Your task to perform on an android device: Search for custom made wallets on etsy.com Image 0: 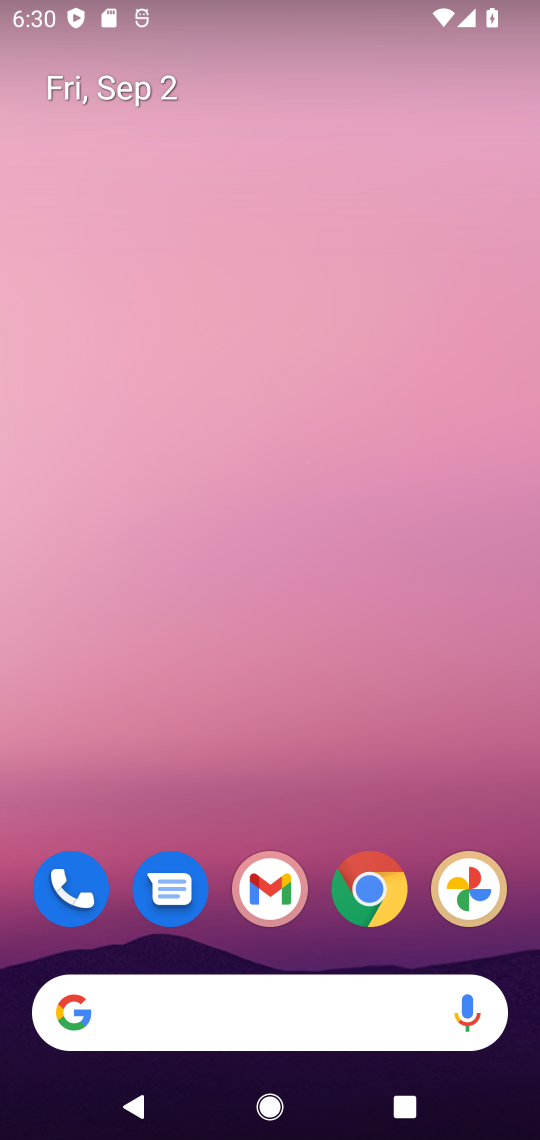
Step 0: click (357, 1032)
Your task to perform on an android device: Search for custom made wallets on etsy.com Image 1: 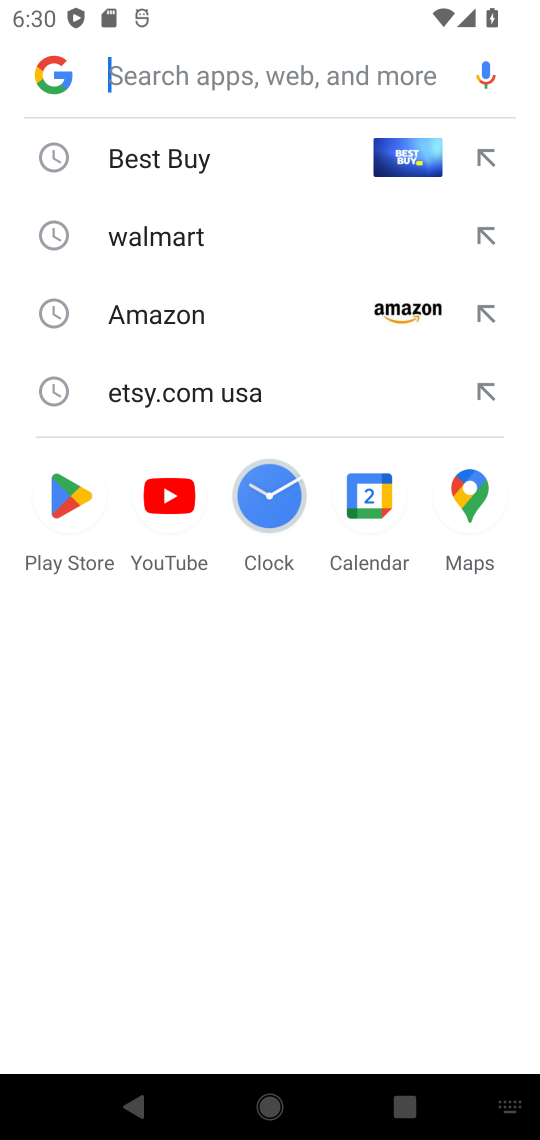
Step 1: type "etsy.com"
Your task to perform on an android device: Search for custom made wallets on etsy.com Image 2: 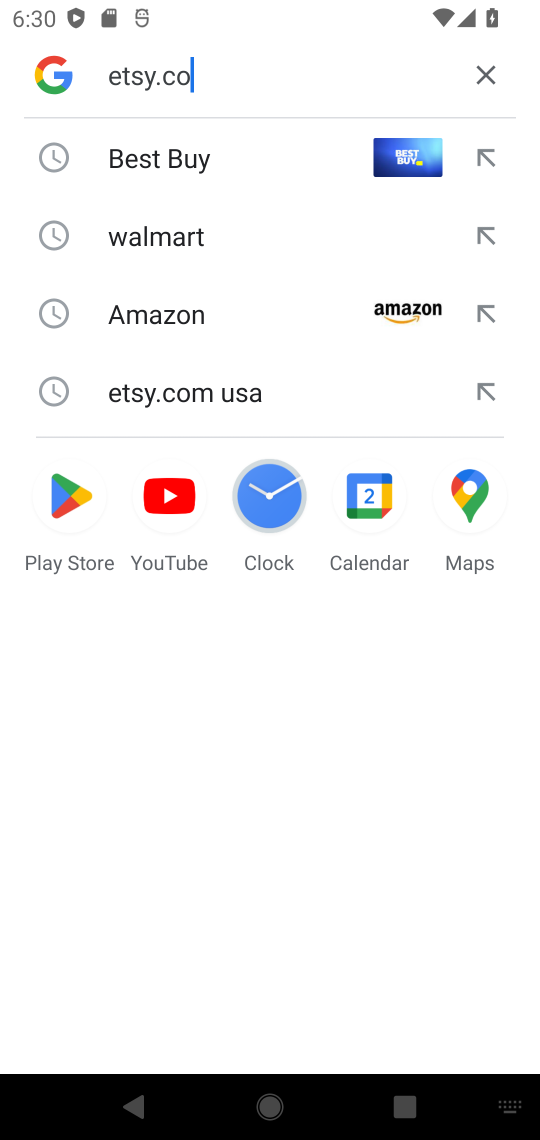
Step 2: type ""
Your task to perform on an android device: Search for custom made wallets on etsy.com Image 3: 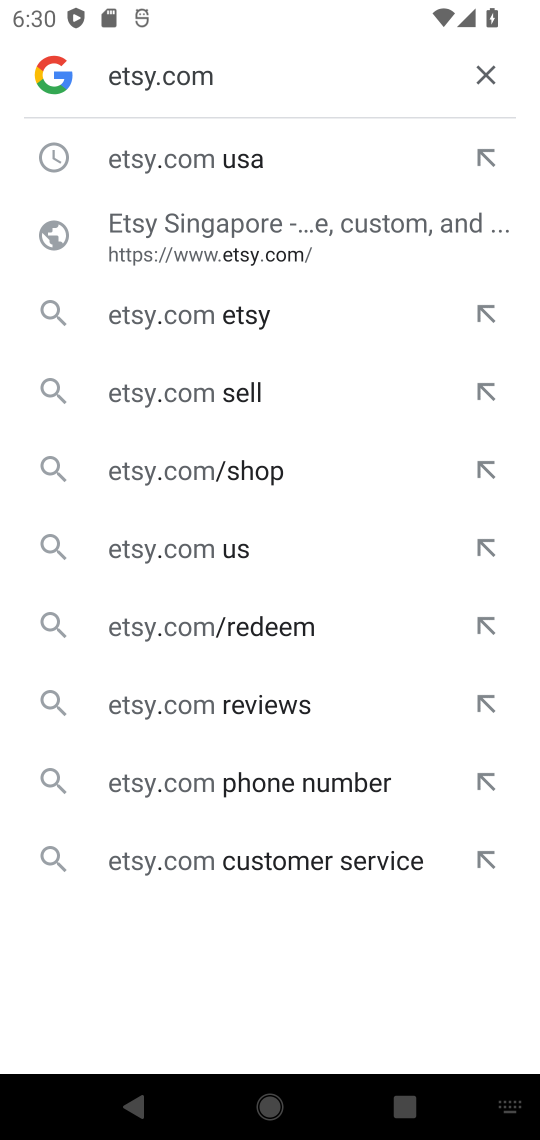
Step 3: click (283, 164)
Your task to perform on an android device: Search for custom made wallets on etsy.com Image 4: 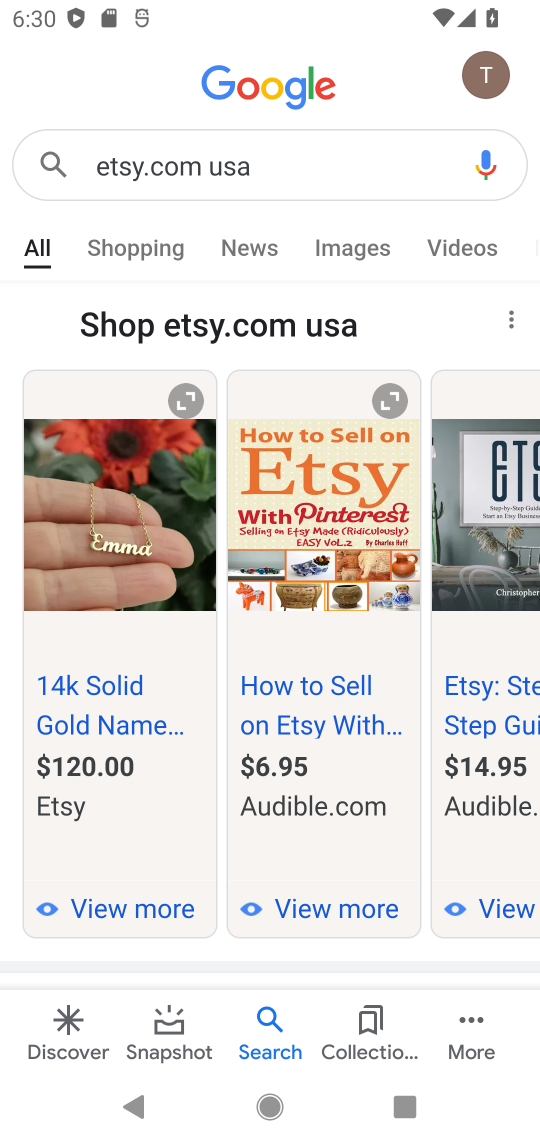
Step 4: drag from (172, 759) to (142, 279)
Your task to perform on an android device: Search for custom made wallets on etsy.com Image 5: 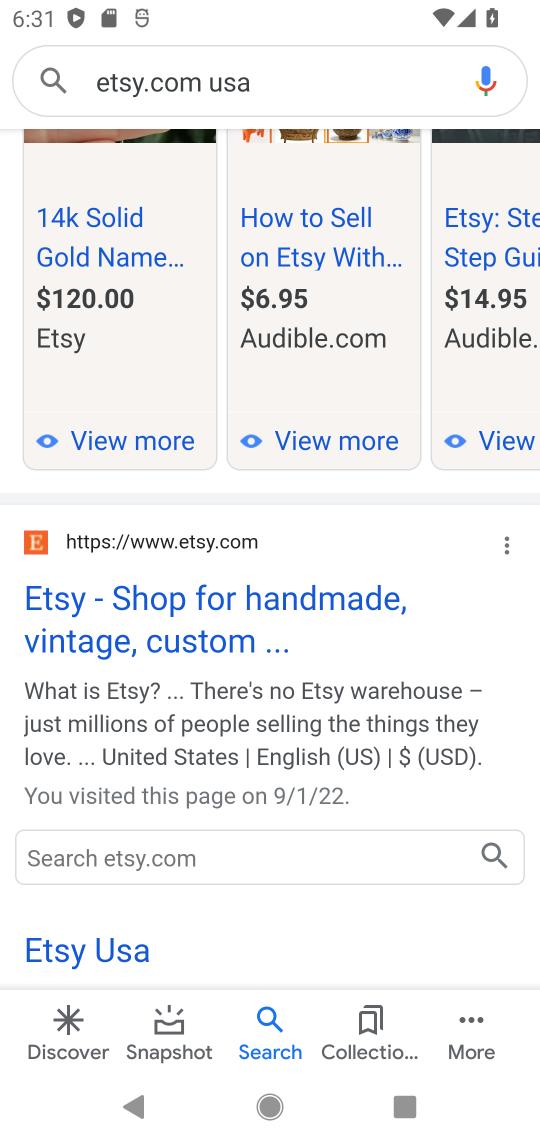
Step 5: click (198, 617)
Your task to perform on an android device: Search for custom made wallets on etsy.com Image 6: 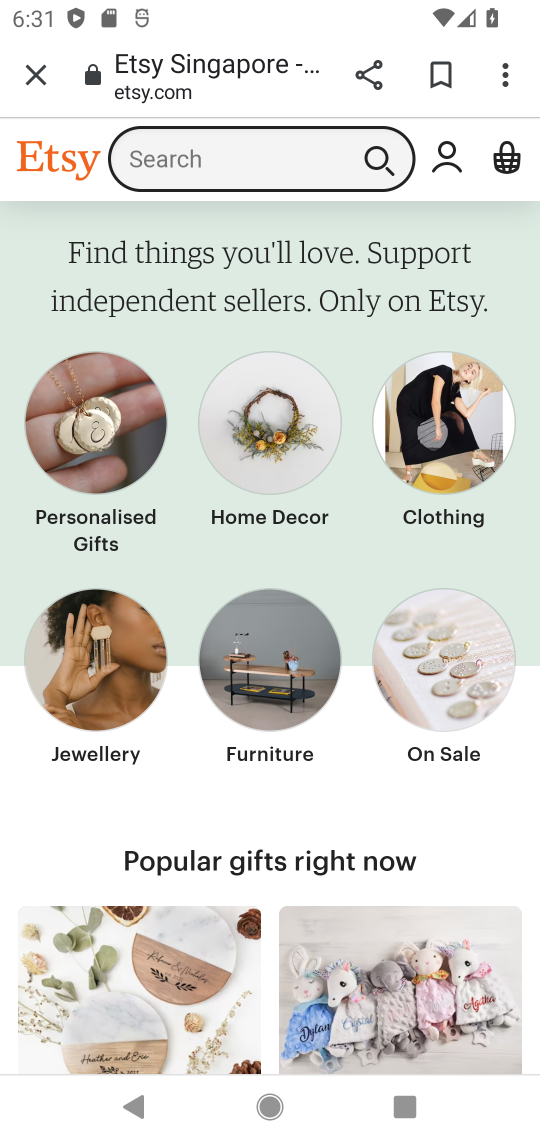
Step 6: click (237, 168)
Your task to perform on an android device: Search for custom made wallets on etsy.com Image 7: 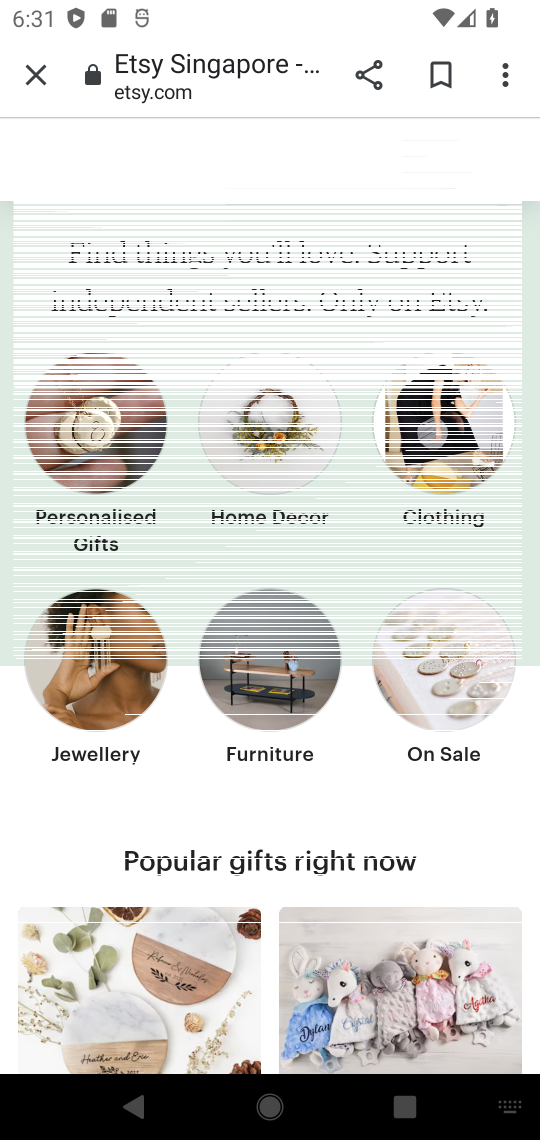
Step 7: type "custom made wallets"
Your task to perform on an android device: Search for custom made wallets on etsy.com Image 8: 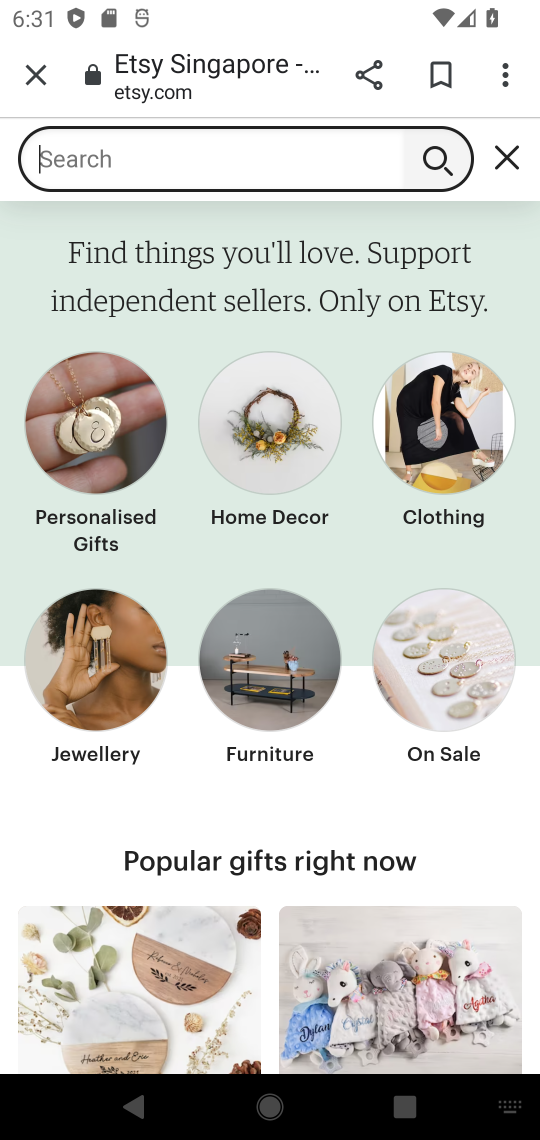
Step 8: type ""
Your task to perform on an android device: Search for custom made wallets on etsy.com Image 9: 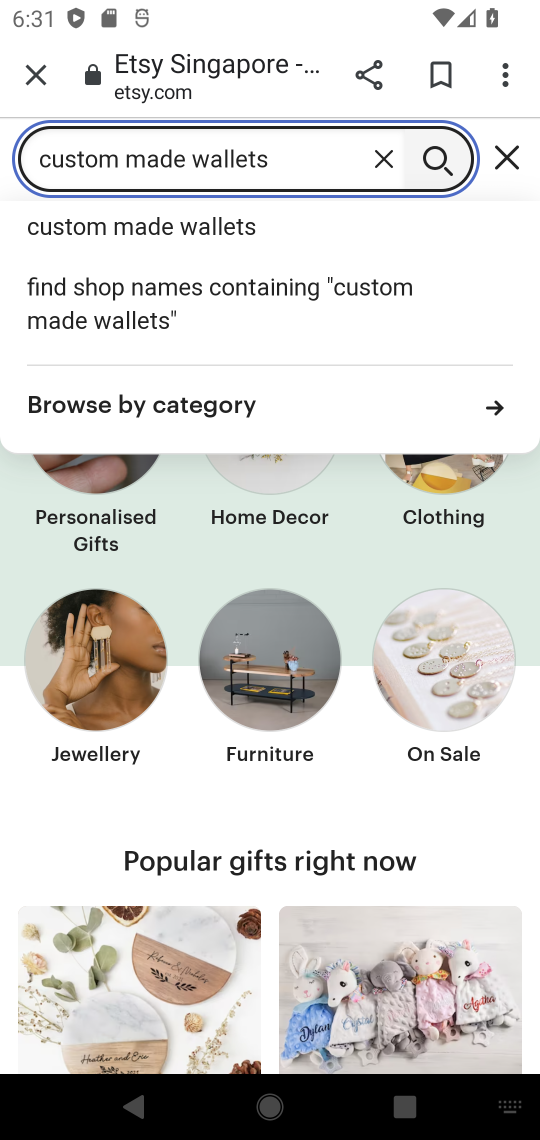
Step 9: click (445, 153)
Your task to perform on an android device: Search for custom made wallets on etsy.com Image 10: 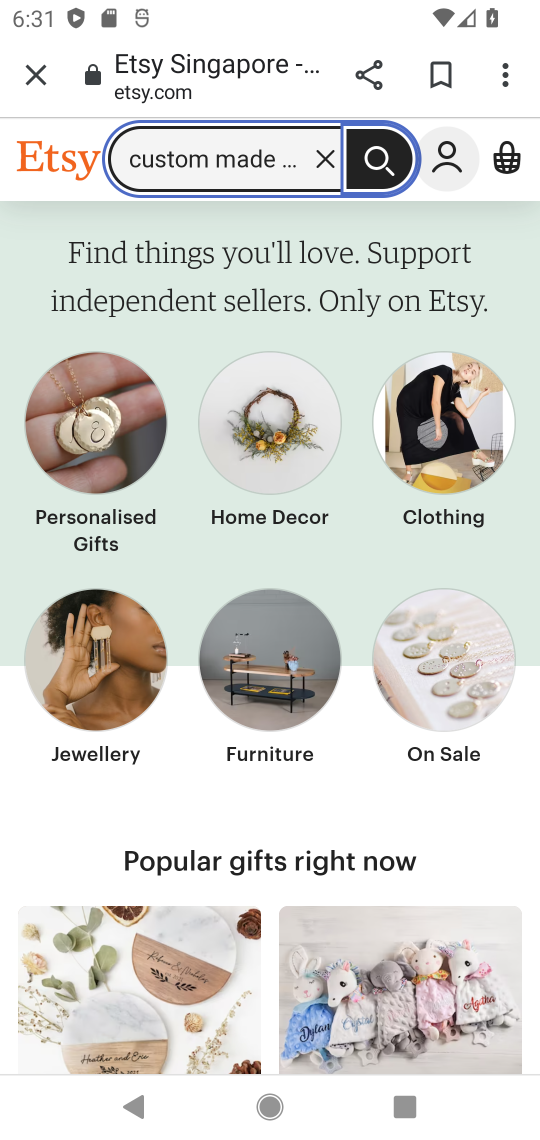
Step 10: click (391, 142)
Your task to perform on an android device: Search for custom made wallets on etsy.com Image 11: 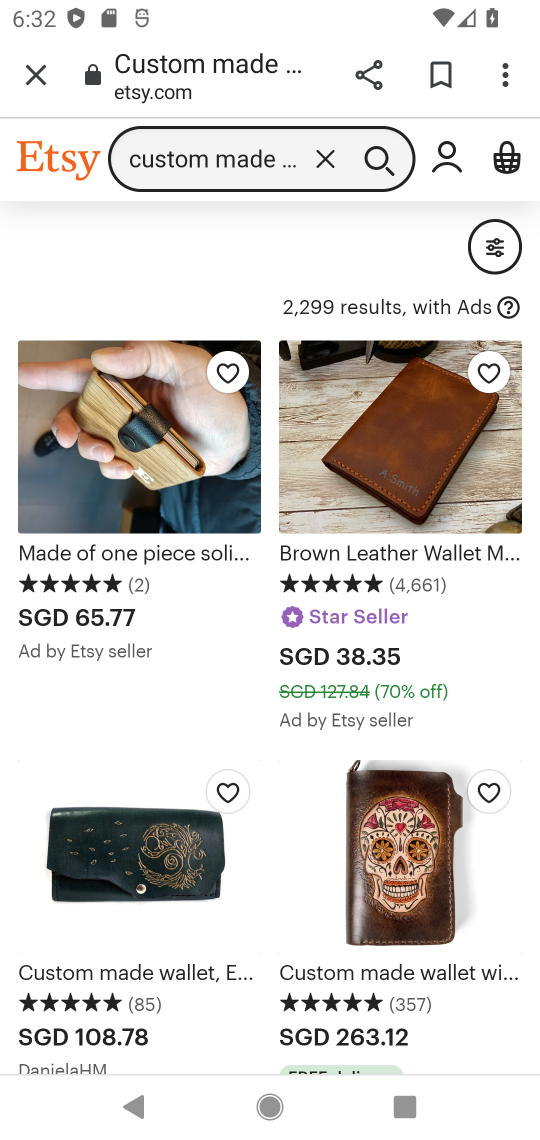
Step 11: task complete